Your task to perform on an android device: turn notification dots off Image 0: 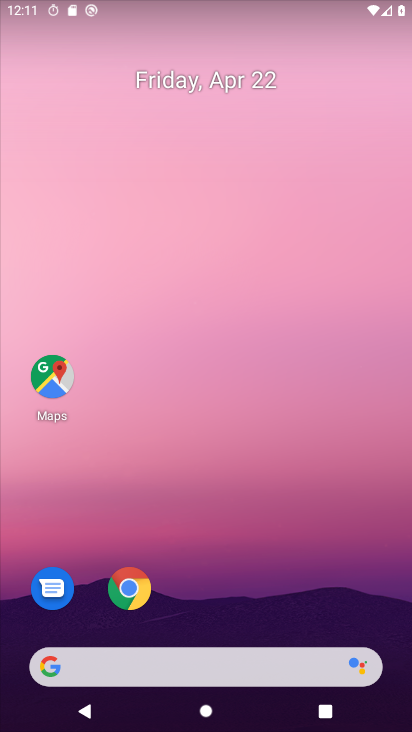
Step 0: drag from (201, 602) to (280, 62)
Your task to perform on an android device: turn notification dots off Image 1: 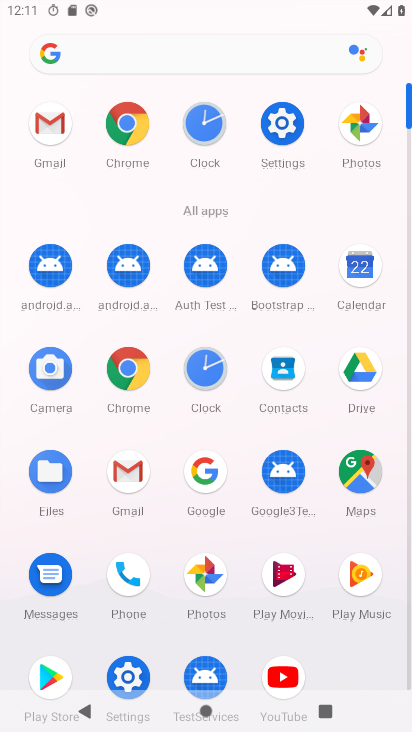
Step 1: click (138, 668)
Your task to perform on an android device: turn notification dots off Image 2: 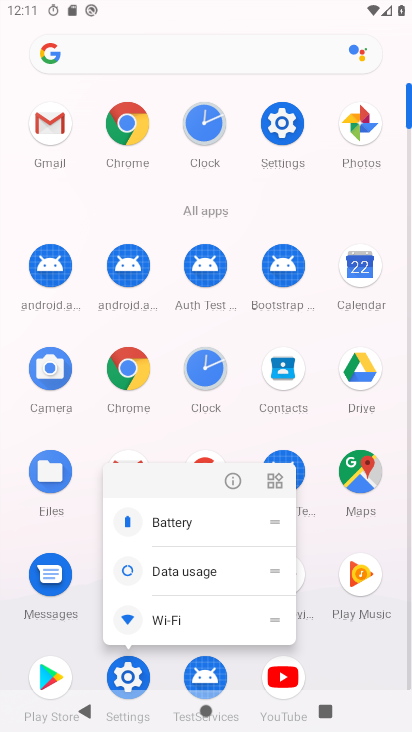
Step 2: click (137, 670)
Your task to perform on an android device: turn notification dots off Image 3: 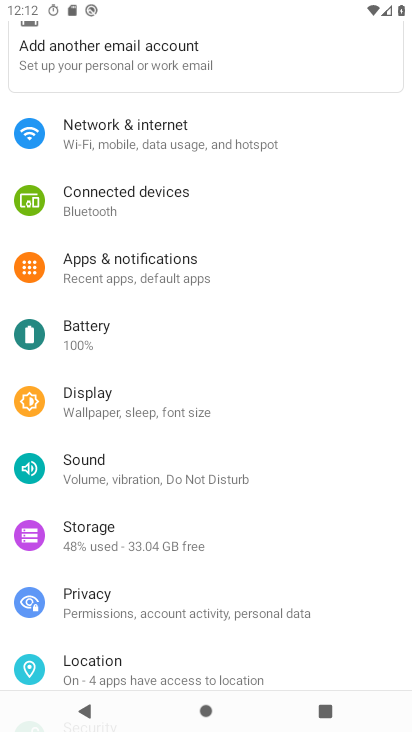
Step 3: click (157, 272)
Your task to perform on an android device: turn notification dots off Image 4: 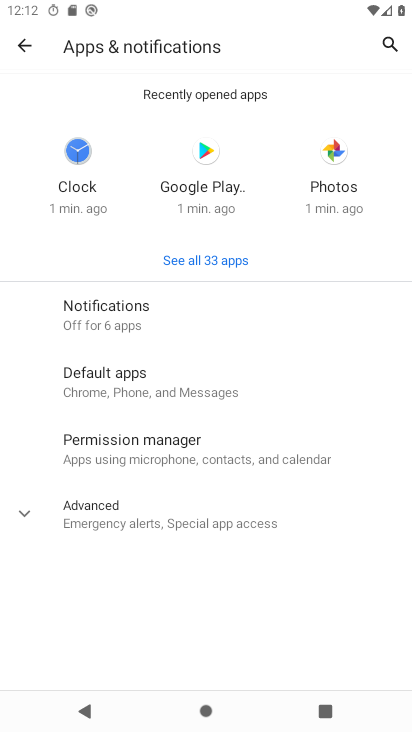
Step 4: click (160, 308)
Your task to perform on an android device: turn notification dots off Image 5: 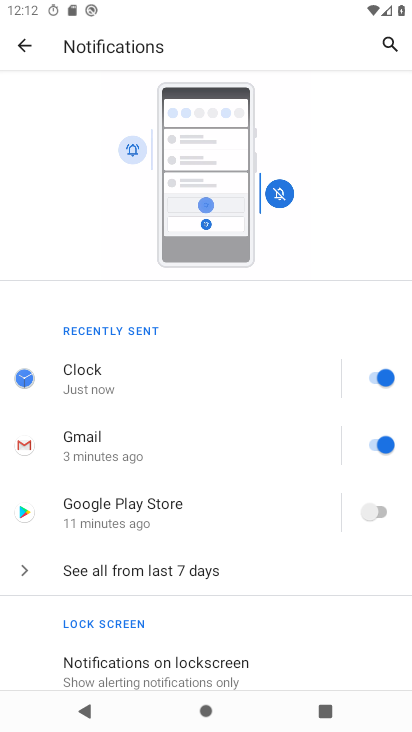
Step 5: drag from (201, 653) to (208, 468)
Your task to perform on an android device: turn notification dots off Image 6: 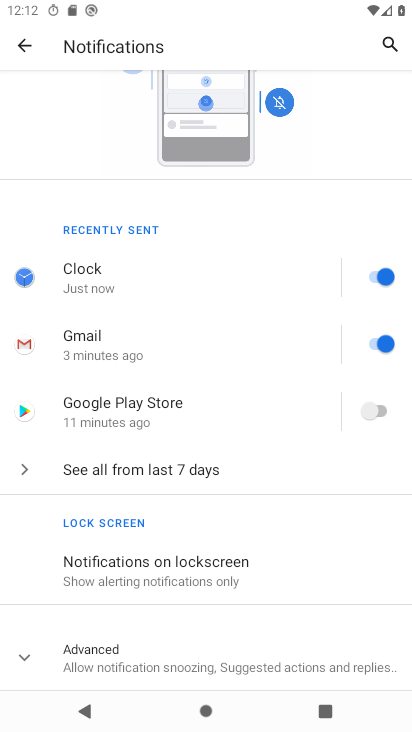
Step 6: click (233, 655)
Your task to perform on an android device: turn notification dots off Image 7: 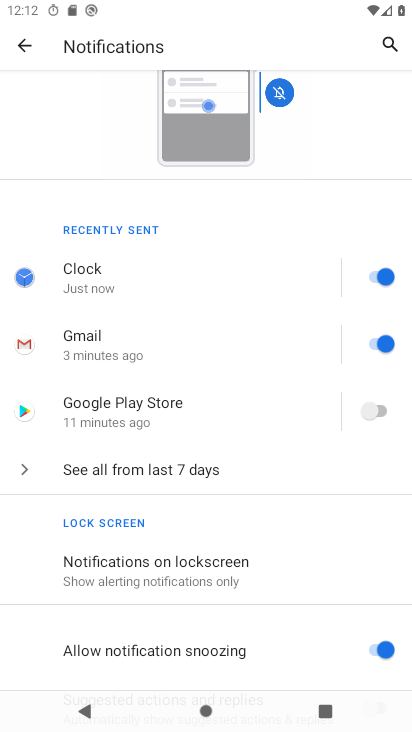
Step 7: task complete